Your task to perform on an android device: See recent photos Image 0: 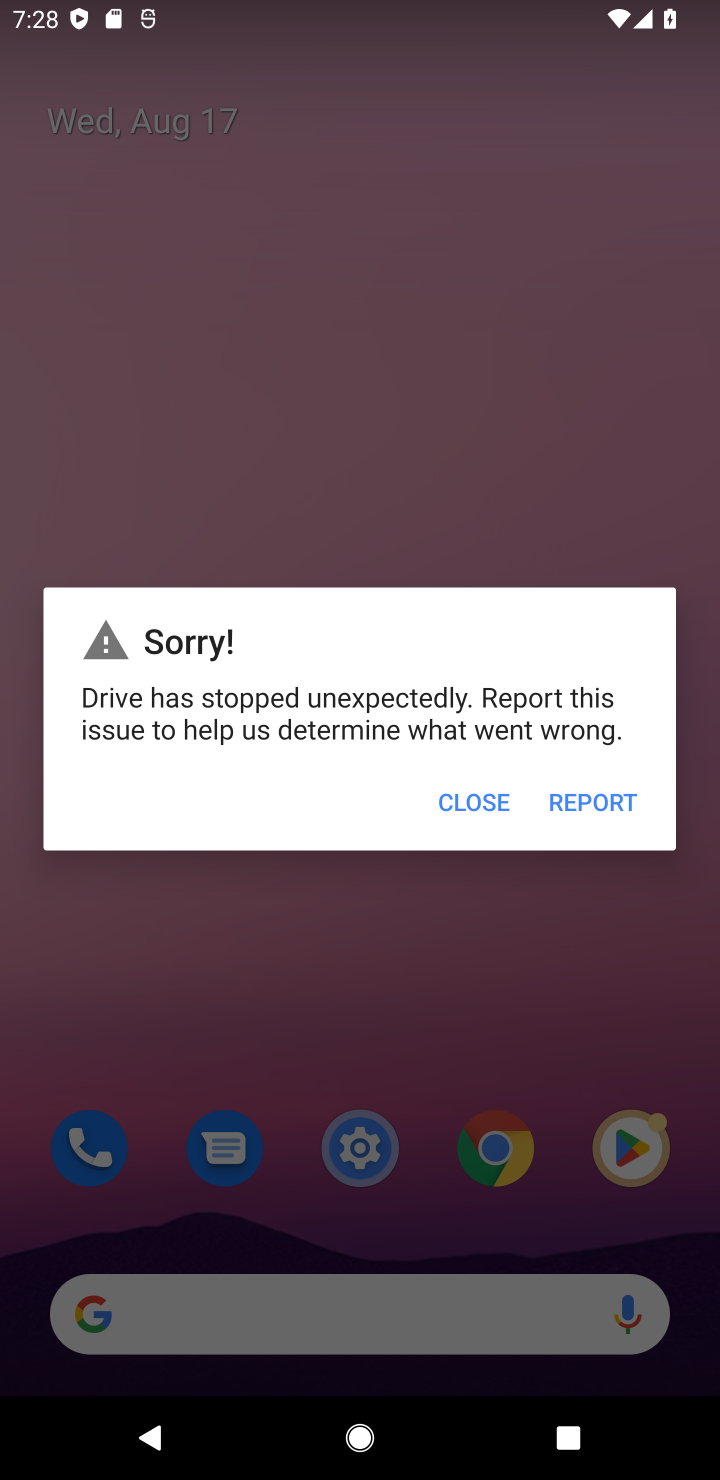
Step 0: press home button
Your task to perform on an android device: See recent photos Image 1: 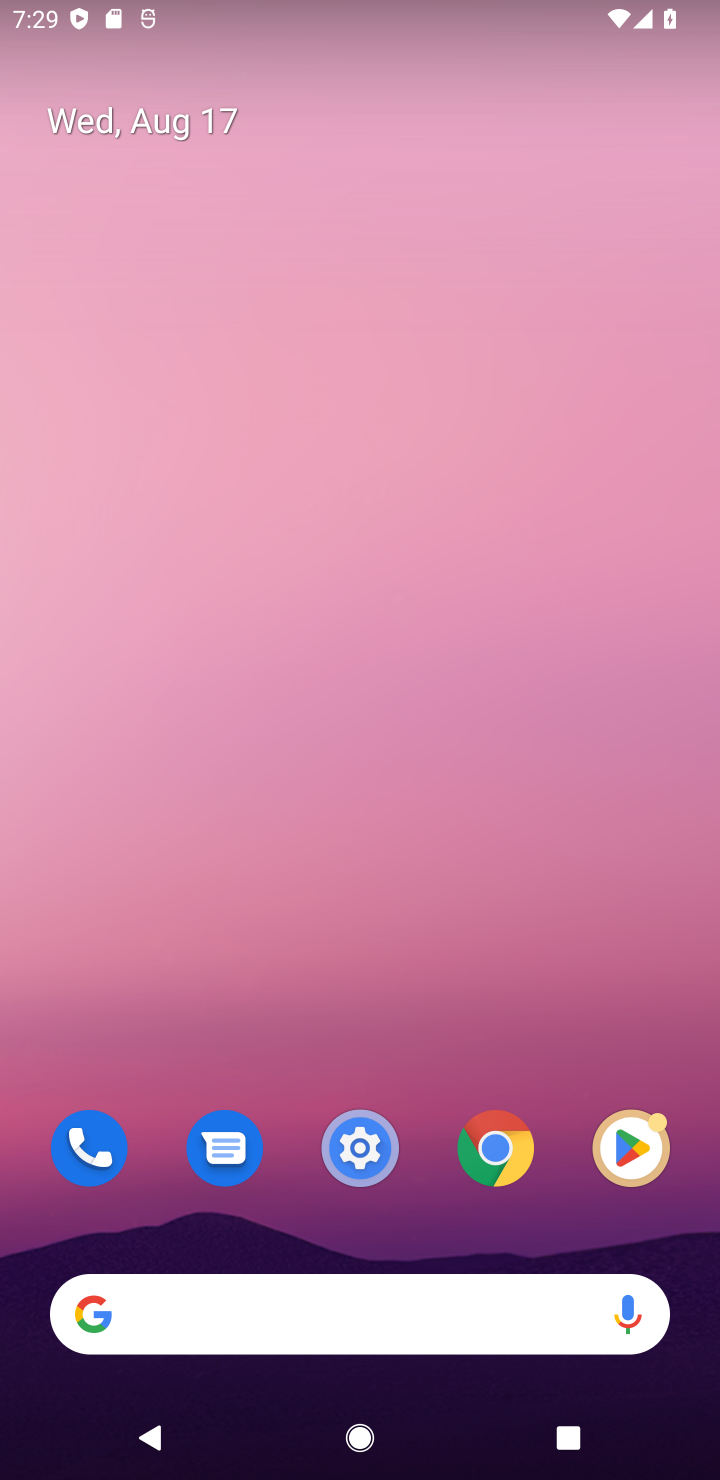
Step 1: drag from (529, 1200) to (534, 340)
Your task to perform on an android device: See recent photos Image 2: 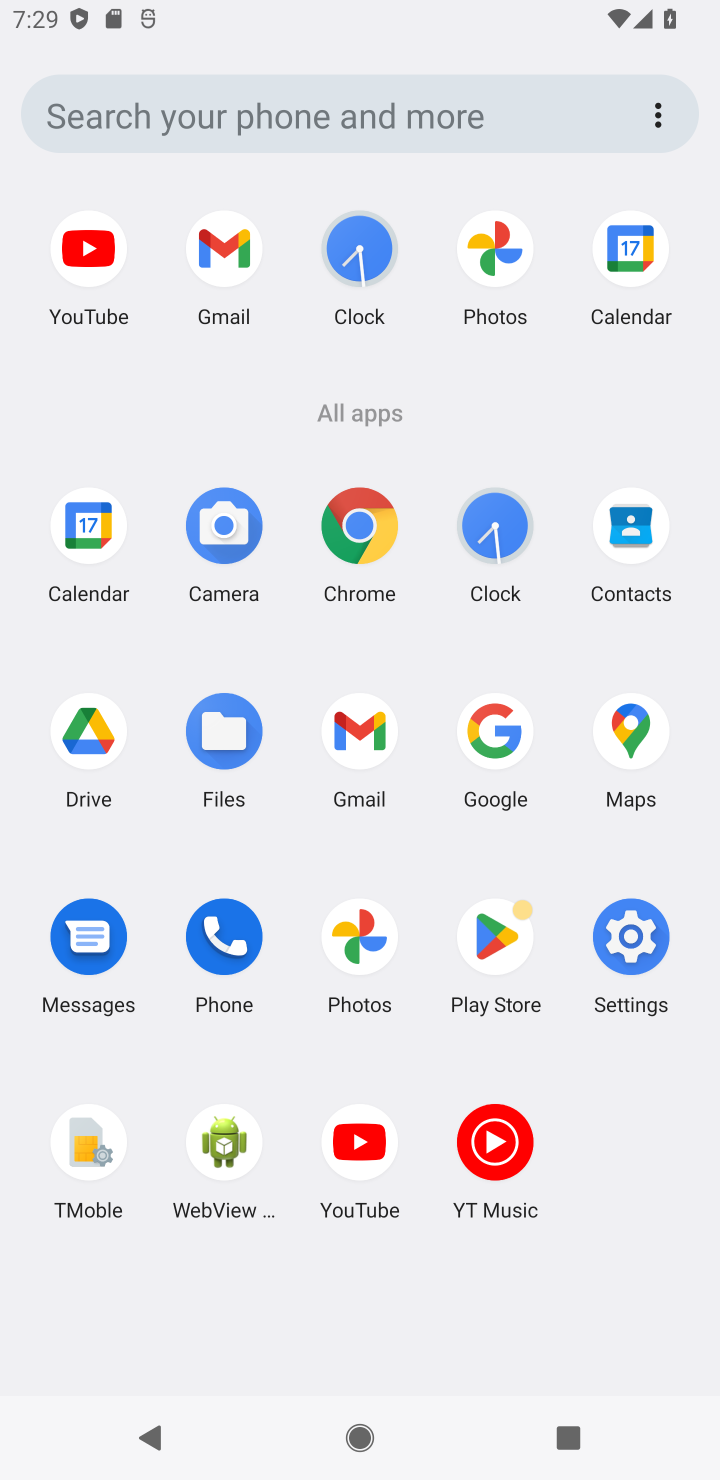
Step 2: click (358, 937)
Your task to perform on an android device: See recent photos Image 3: 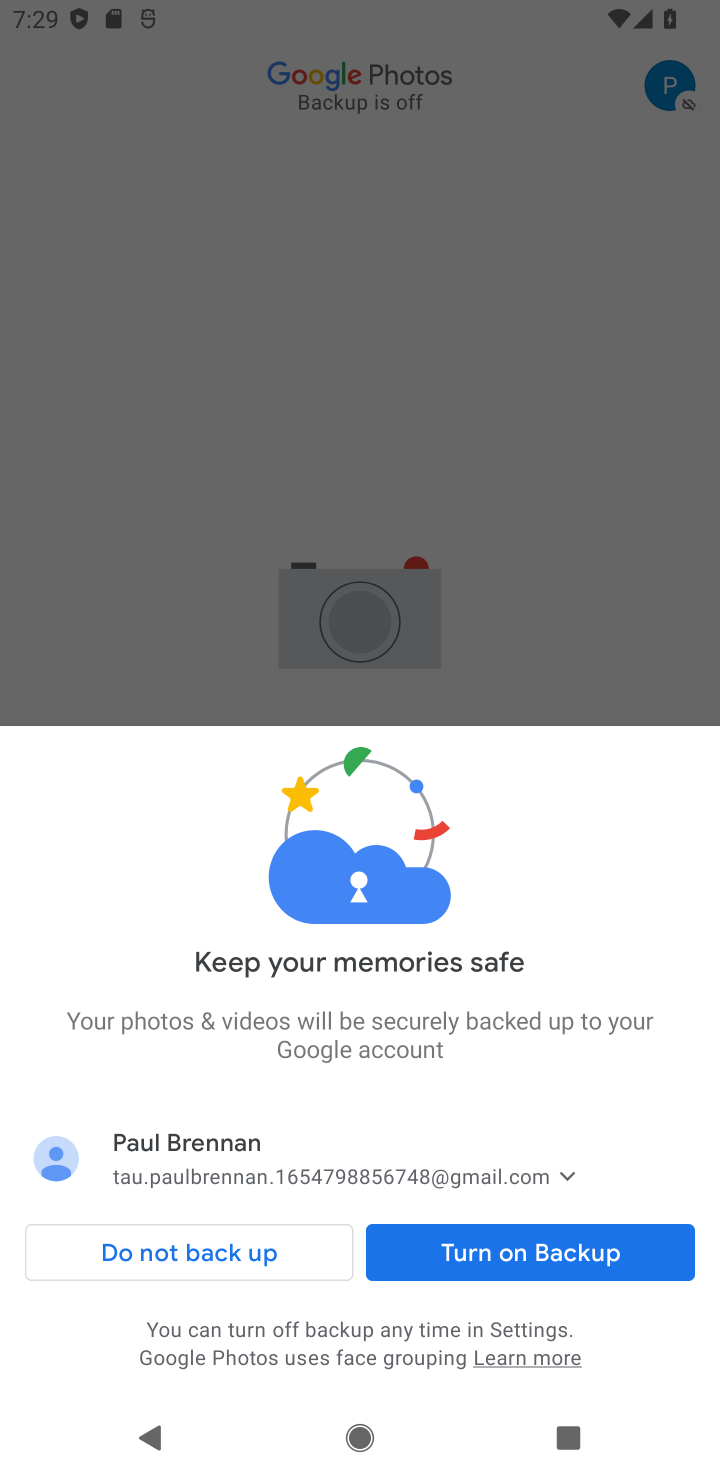
Step 3: click (531, 1261)
Your task to perform on an android device: See recent photos Image 4: 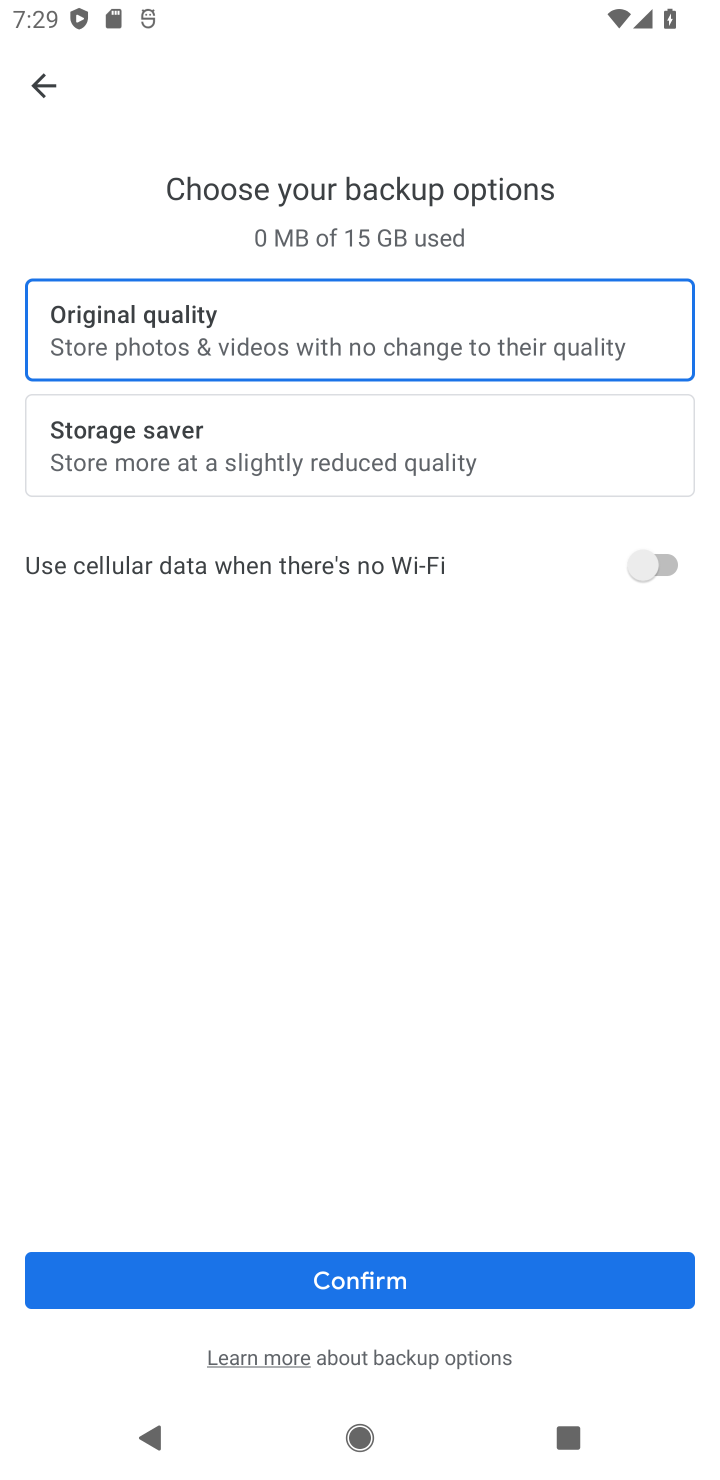
Step 4: click (398, 1305)
Your task to perform on an android device: See recent photos Image 5: 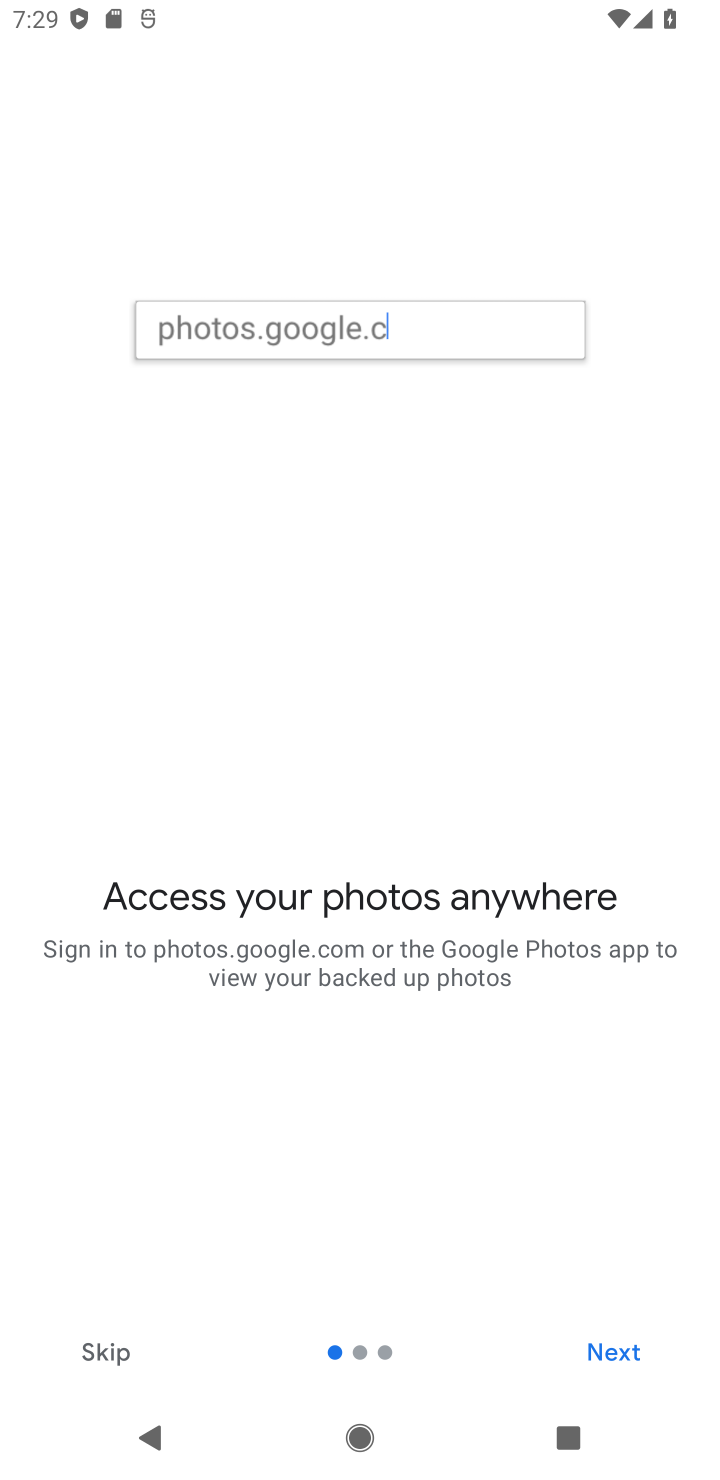
Step 5: click (102, 1355)
Your task to perform on an android device: See recent photos Image 6: 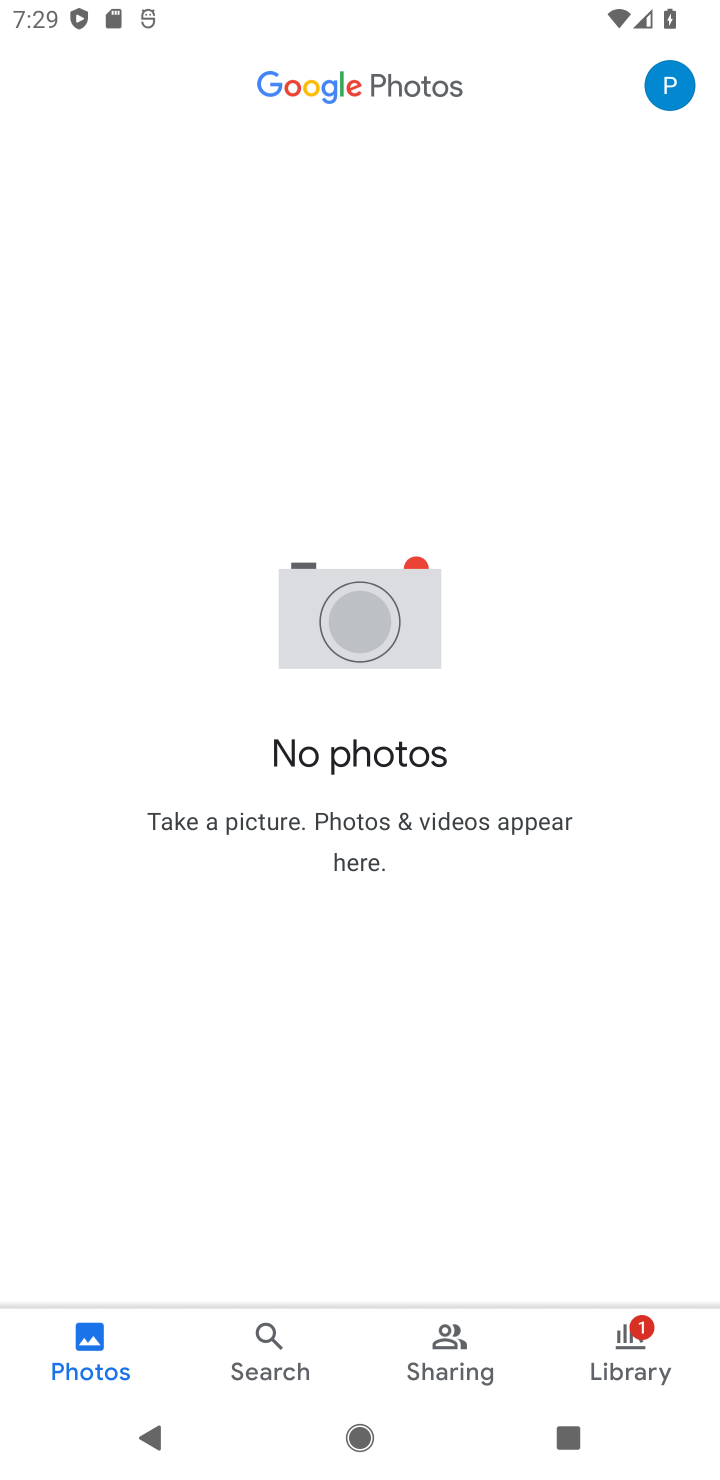
Step 6: task complete